Your task to perform on an android device: Open Chrome and go to settings Image 0: 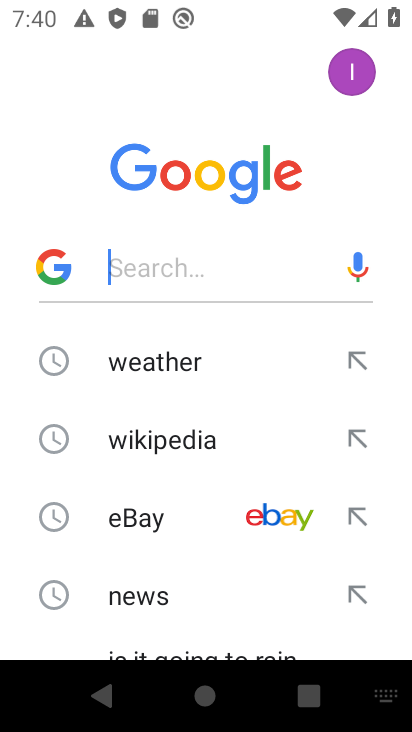
Step 0: press back button
Your task to perform on an android device: Open Chrome and go to settings Image 1: 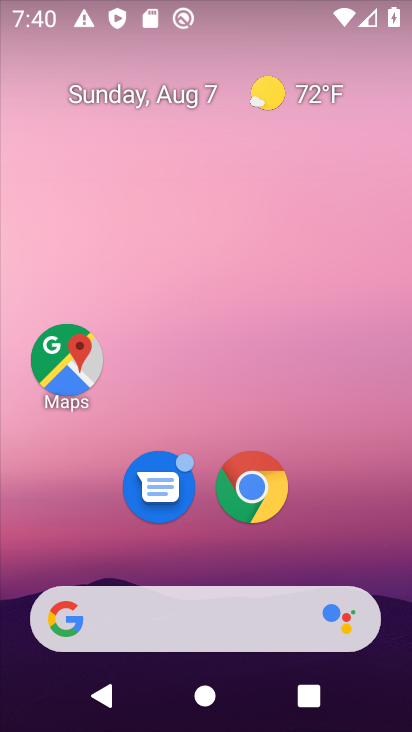
Step 1: click (243, 483)
Your task to perform on an android device: Open Chrome and go to settings Image 2: 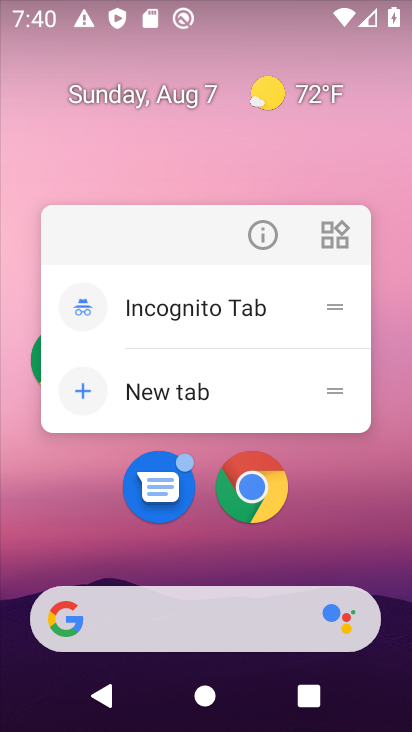
Step 2: click (243, 483)
Your task to perform on an android device: Open Chrome and go to settings Image 3: 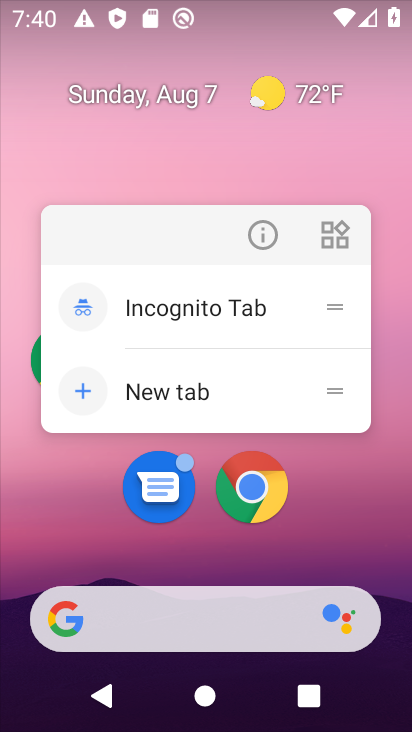
Step 3: click (246, 483)
Your task to perform on an android device: Open Chrome and go to settings Image 4: 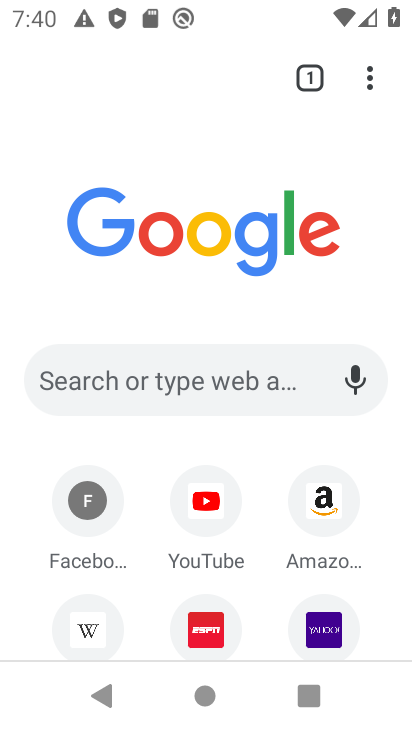
Step 4: click (369, 76)
Your task to perform on an android device: Open Chrome and go to settings Image 5: 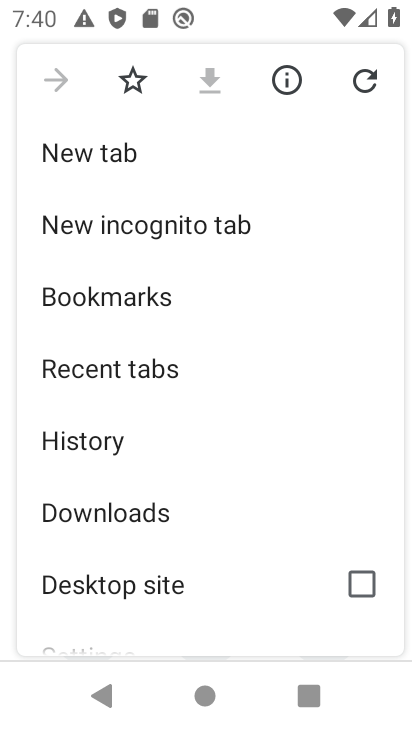
Step 5: click (246, 224)
Your task to perform on an android device: Open Chrome and go to settings Image 6: 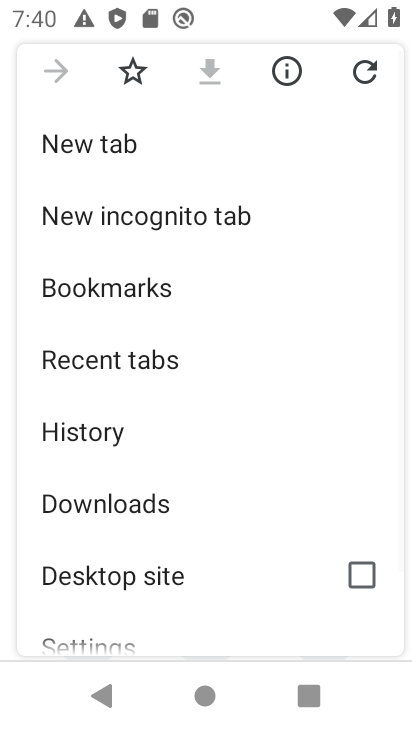
Step 6: drag from (231, 493) to (243, 249)
Your task to perform on an android device: Open Chrome and go to settings Image 7: 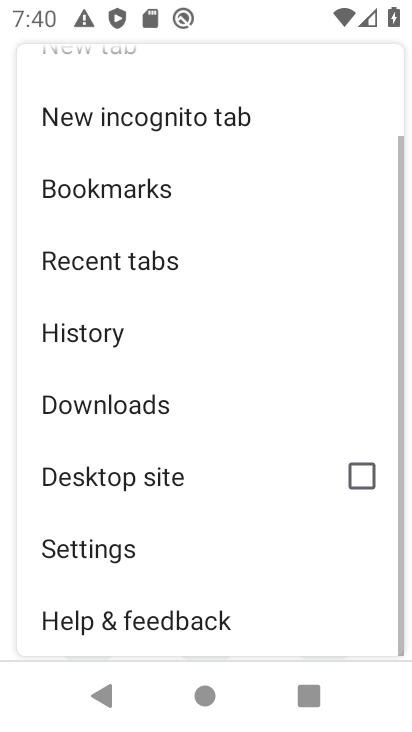
Step 7: click (87, 552)
Your task to perform on an android device: Open Chrome and go to settings Image 8: 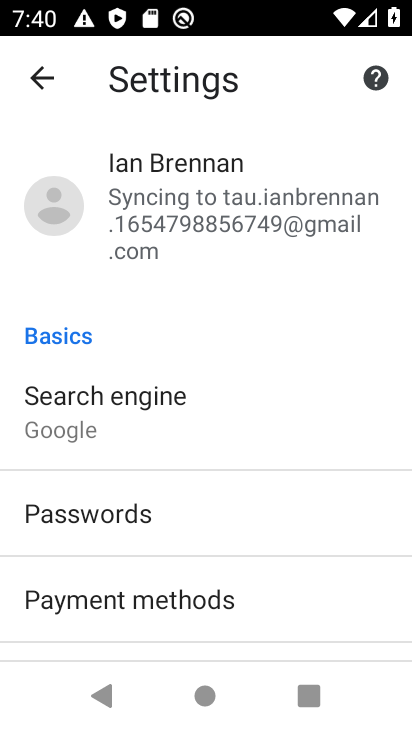
Step 8: task complete